Your task to perform on an android device: choose inbox layout in the gmail app Image 0: 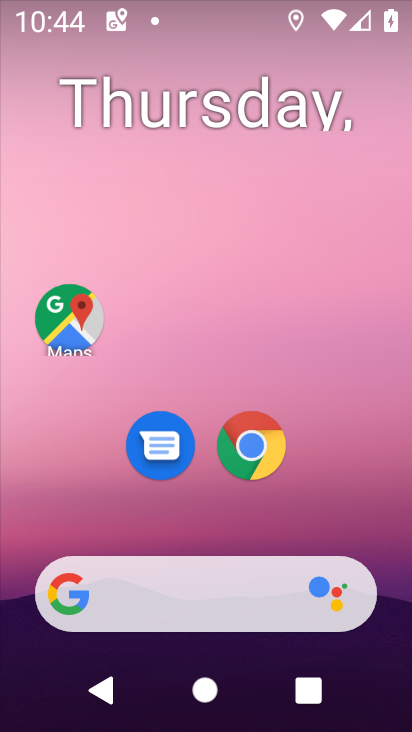
Step 0: drag from (396, 591) to (245, 50)
Your task to perform on an android device: choose inbox layout in the gmail app Image 1: 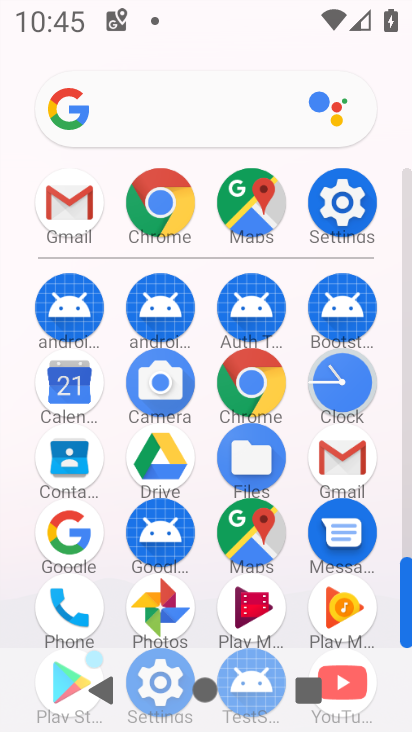
Step 1: click (344, 466)
Your task to perform on an android device: choose inbox layout in the gmail app Image 2: 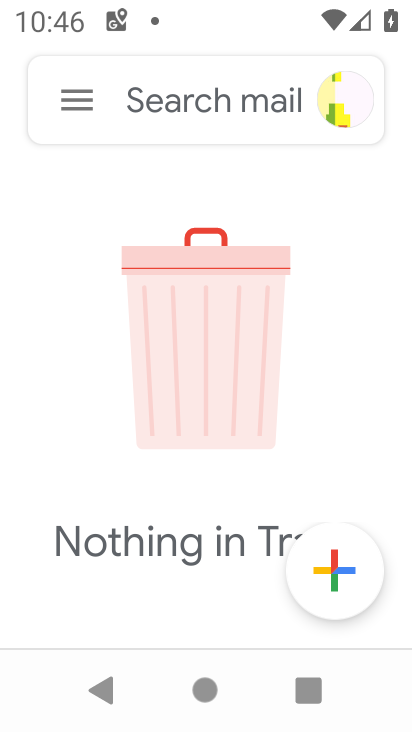
Step 2: task complete